Your task to perform on an android device: uninstall "Clock" Image 0: 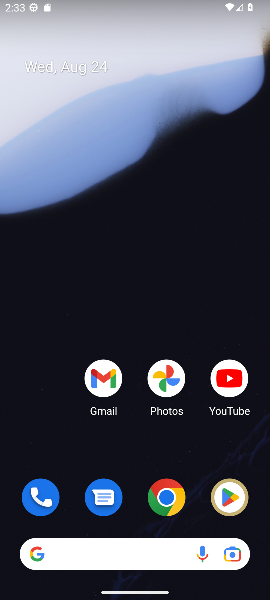
Step 0: drag from (174, 555) to (179, 50)
Your task to perform on an android device: uninstall "Clock" Image 1: 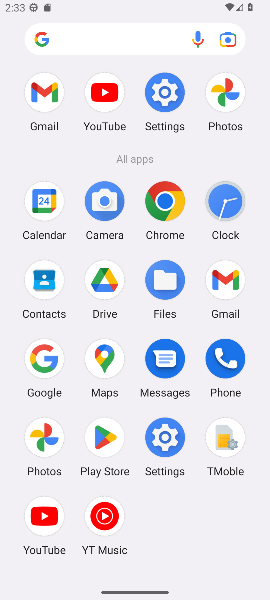
Step 1: click (97, 441)
Your task to perform on an android device: uninstall "Clock" Image 2: 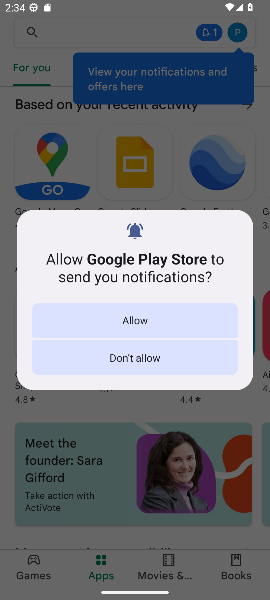
Step 2: click (132, 315)
Your task to perform on an android device: uninstall "Clock" Image 3: 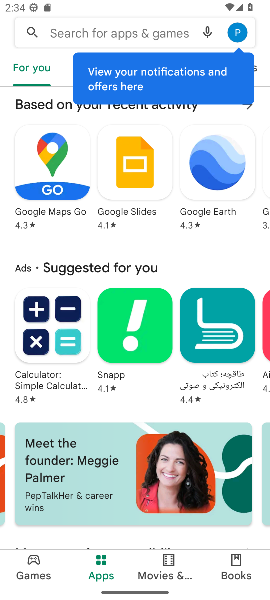
Step 3: click (105, 35)
Your task to perform on an android device: uninstall "Clock" Image 4: 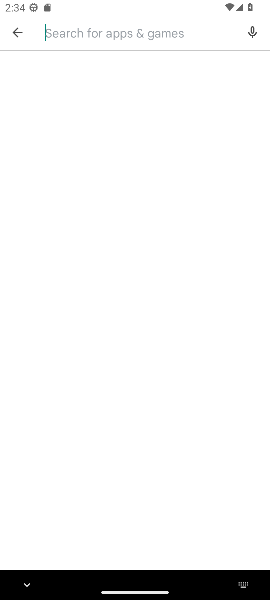
Step 4: type "Clock"
Your task to perform on an android device: uninstall "Clock" Image 5: 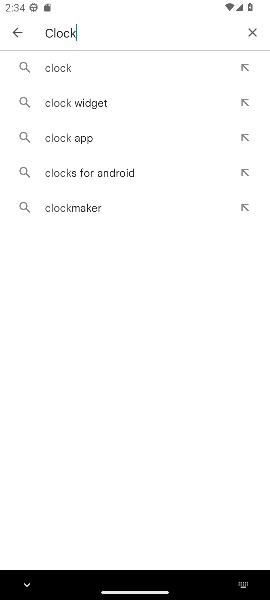
Step 5: click (63, 71)
Your task to perform on an android device: uninstall "Clock" Image 6: 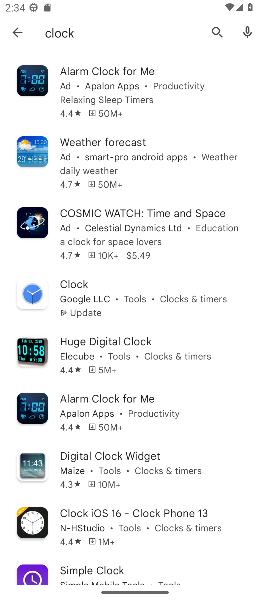
Step 6: click (77, 284)
Your task to perform on an android device: uninstall "Clock" Image 7: 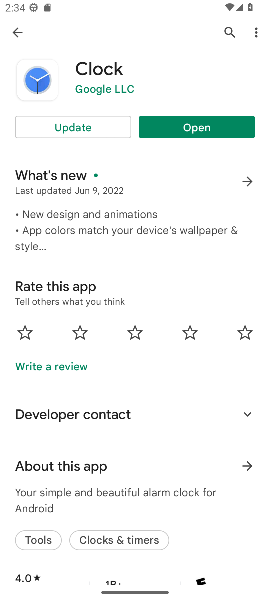
Step 7: click (79, 122)
Your task to perform on an android device: uninstall "Clock" Image 8: 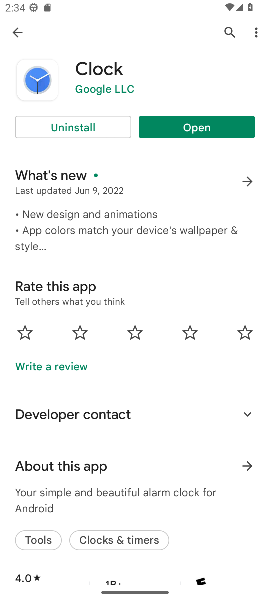
Step 8: click (79, 122)
Your task to perform on an android device: uninstall "Clock" Image 9: 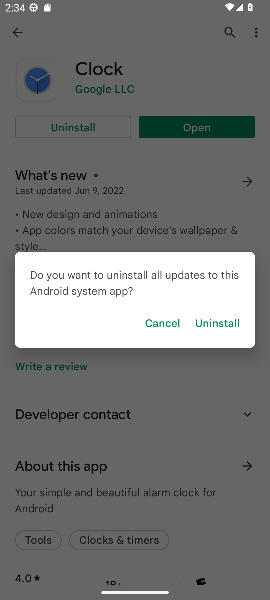
Step 9: click (216, 327)
Your task to perform on an android device: uninstall "Clock" Image 10: 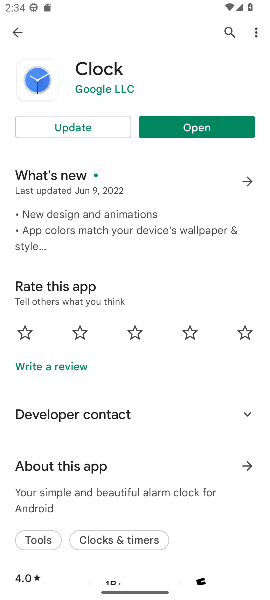
Step 10: task complete